Your task to perform on an android device: turn pop-ups off in chrome Image 0: 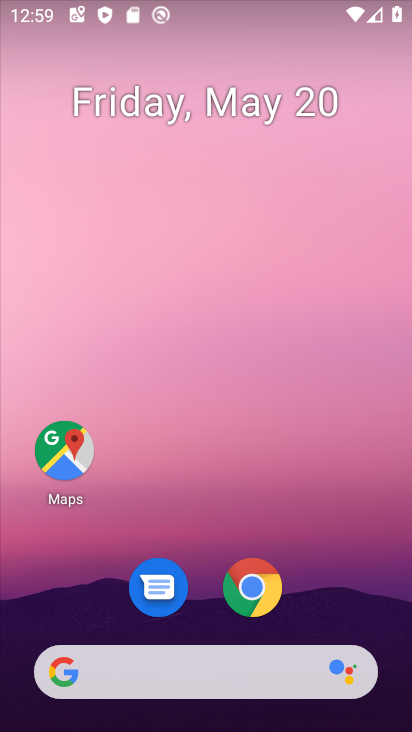
Step 0: click (242, 588)
Your task to perform on an android device: turn pop-ups off in chrome Image 1: 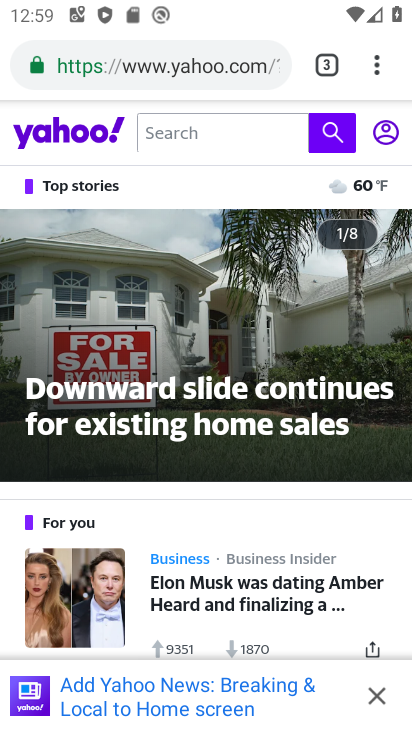
Step 1: click (375, 62)
Your task to perform on an android device: turn pop-ups off in chrome Image 2: 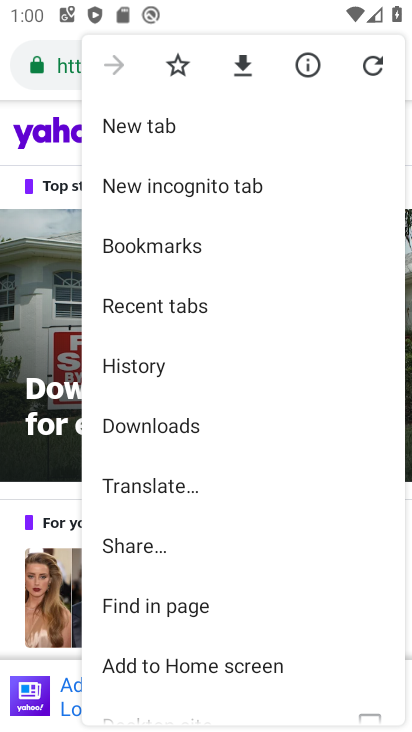
Step 2: drag from (293, 510) to (245, 254)
Your task to perform on an android device: turn pop-ups off in chrome Image 3: 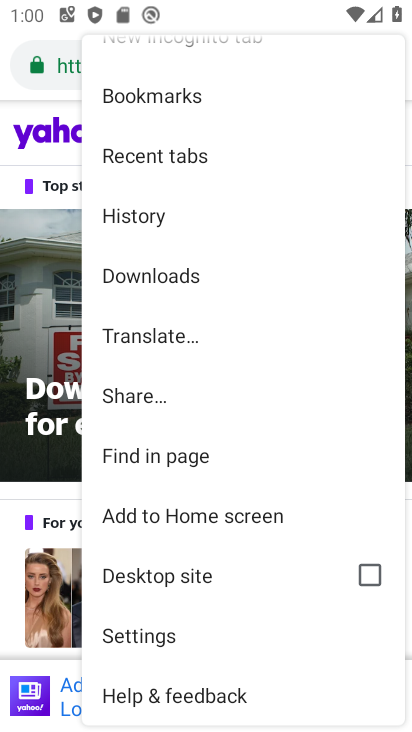
Step 3: click (136, 637)
Your task to perform on an android device: turn pop-ups off in chrome Image 4: 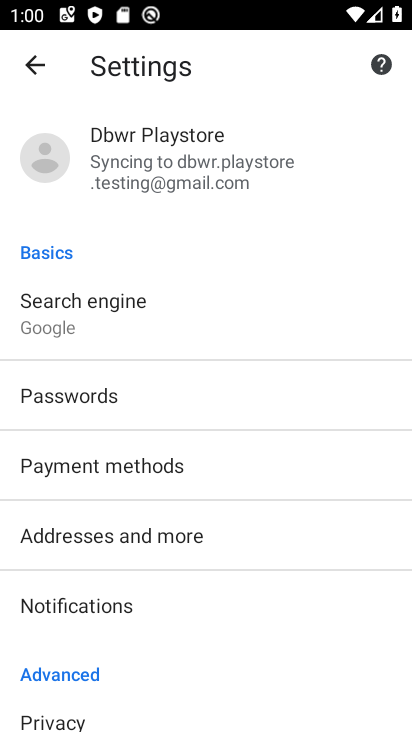
Step 4: drag from (227, 634) to (118, 261)
Your task to perform on an android device: turn pop-ups off in chrome Image 5: 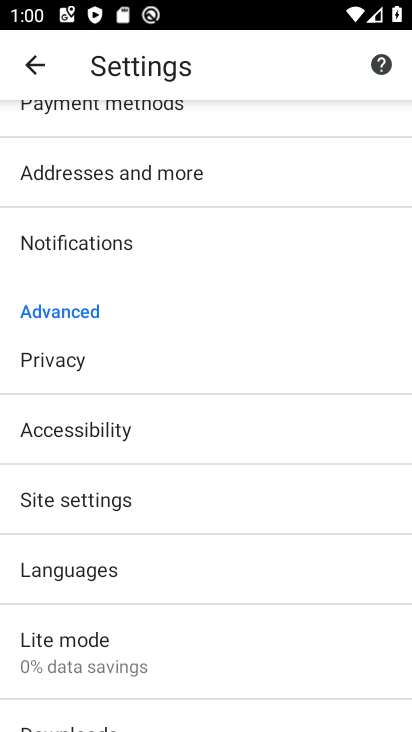
Step 5: drag from (174, 483) to (175, 251)
Your task to perform on an android device: turn pop-ups off in chrome Image 6: 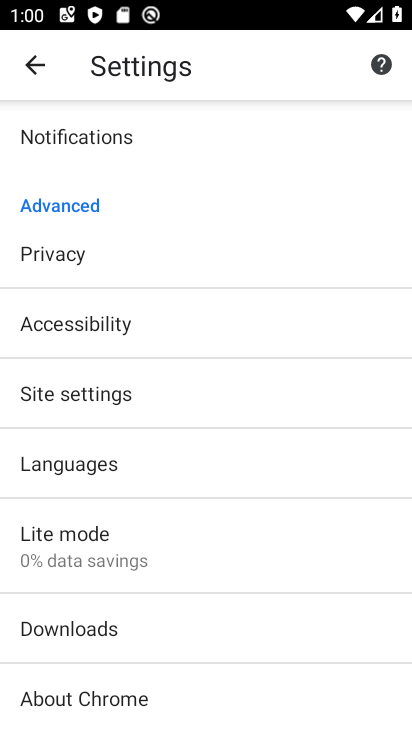
Step 6: click (86, 394)
Your task to perform on an android device: turn pop-ups off in chrome Image 7: 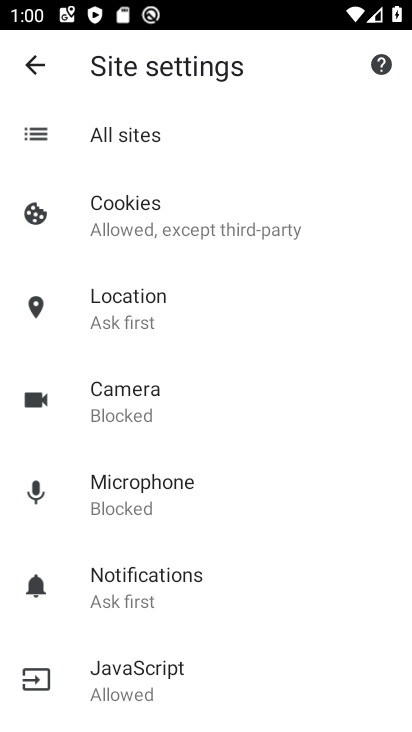
Step 7: drag from (239, 485) to (230, 67)
Your task to perform on an android device: turn pop-ups off in chrome Image 8: 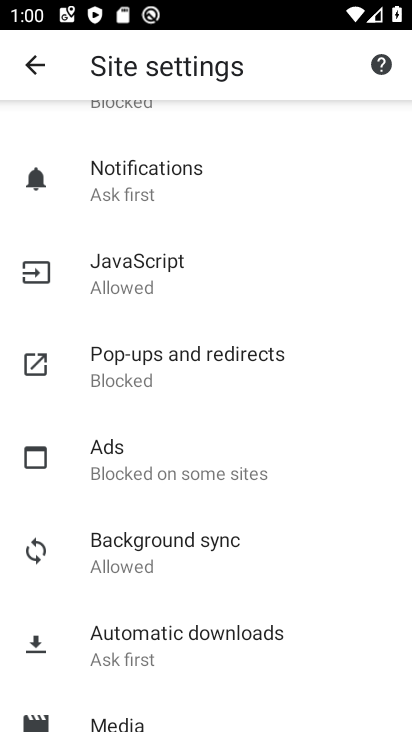
Step 8: click (123, 341)
Your task to perform on an android device: turn pop-ups off in chrome Image 9: 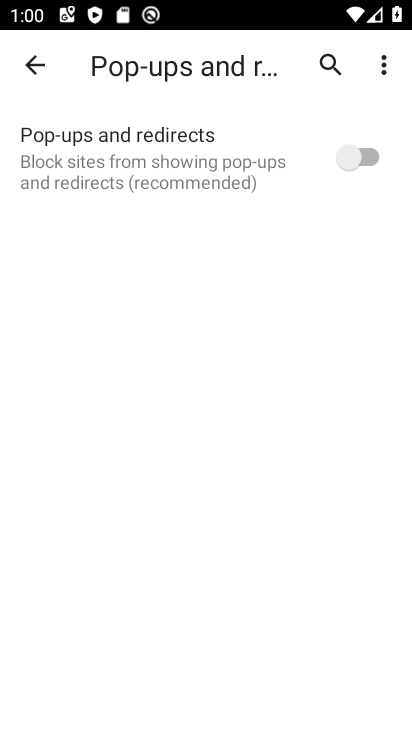
Step 9: task complete